Your task to perform on an android device: turn on data saver in the chrome app Image 0: 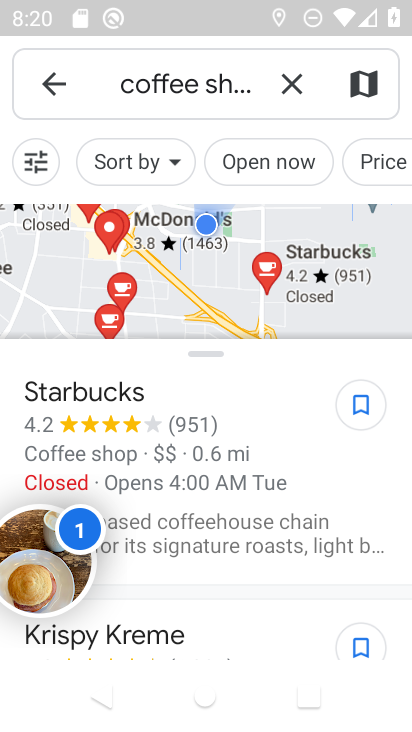
Step 0: click (303, 81)
Your task to perform on an android device: turn on data saver in the chrome app Image 1: 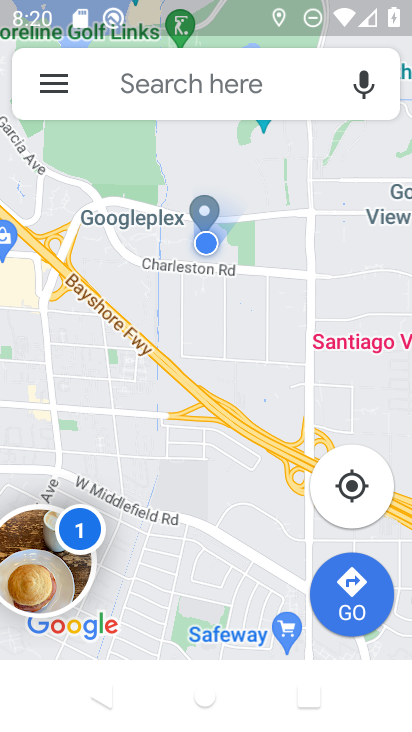
Step 1: press home button
Your task to perform on an android device: turn on data saver in the chrome app Image 2: 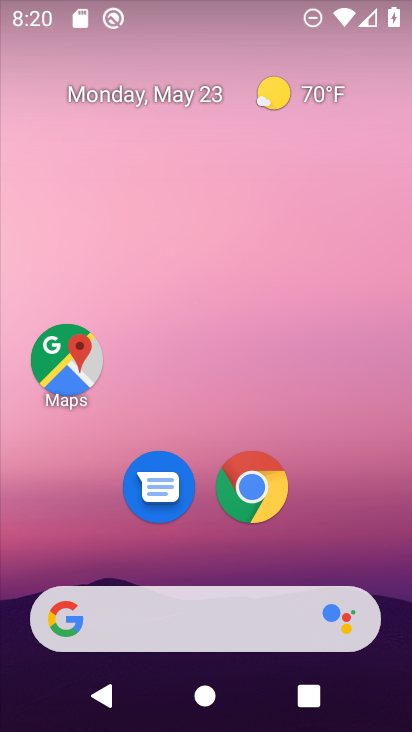
Step 2: click (243, 499)
Your task to perform on an android device: turn on data saver in the chrome app Image 3: 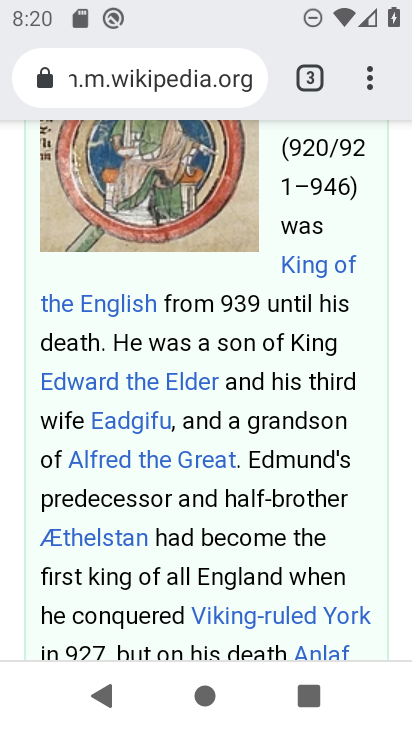
Step 3: click (371, 78)
Your task to perform on an android device: turn on data saver in the chrome app Image 4: 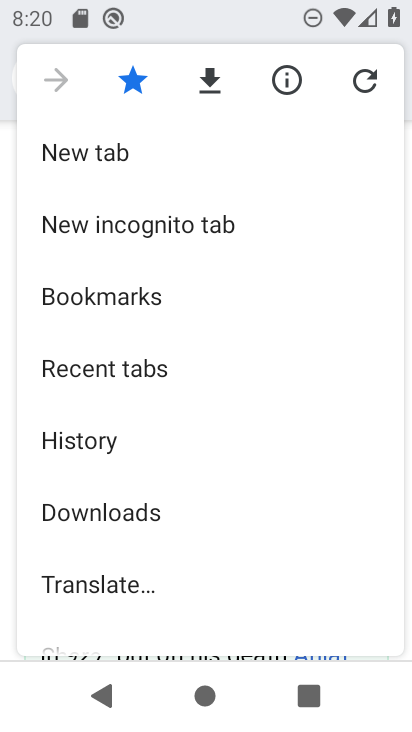
Step 4: drag from (101, 616) to (66, 552)
Your task to perform on an android device: turn on data saver in the chrome app Image 5: 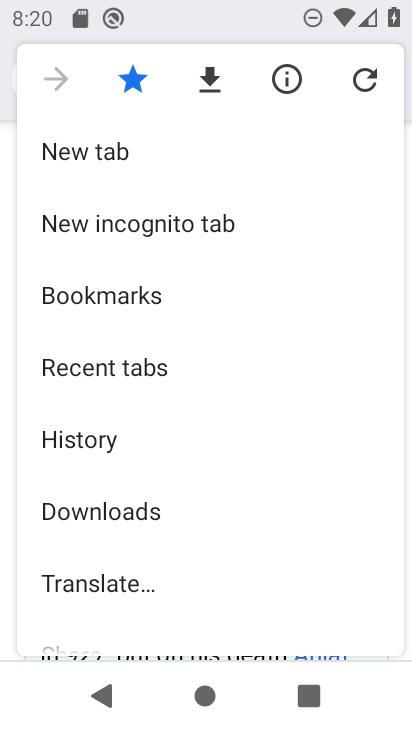
Step 5: drag from (123, 640) to (148, 136)
Your task to perform on an android device: turn on data saver in the chrome app Image 6: 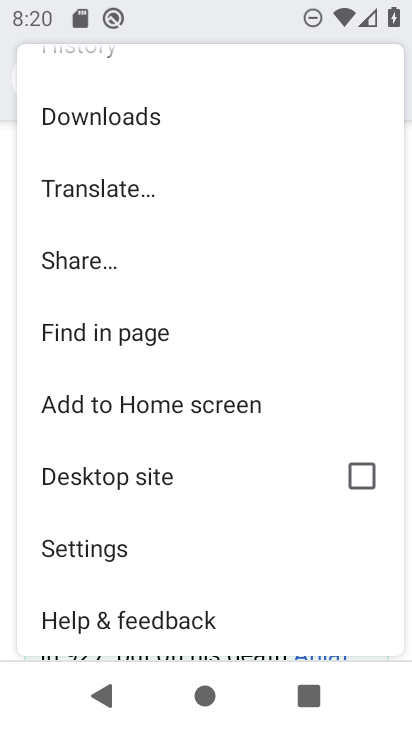
Step 6: click (90, 559)
Your task to perform on an android device: turn on data saver in the chrome app Image 7: 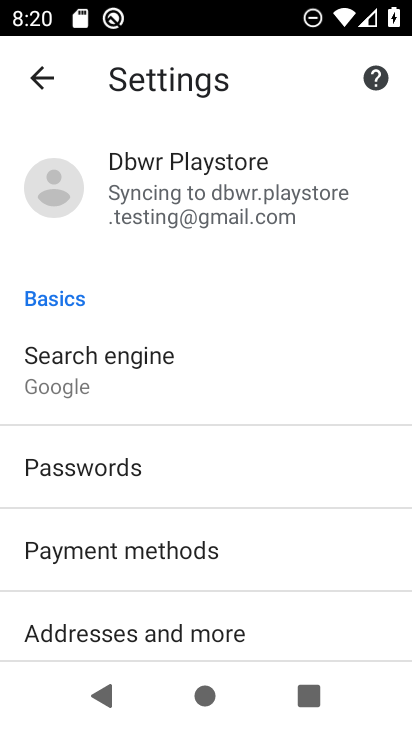
Step 7: drag from (139, 521) to (206, 47)
Your task to perform on an android device: turn on data saver in the chrome app Image 8: 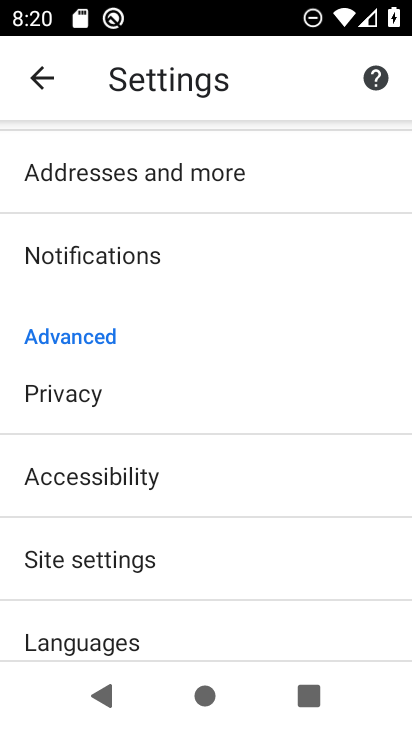
Step 8: drag from (93, 568) to (138, 167)
Your task to perform on an android device: turn on data saver in the chrome app Image 9: 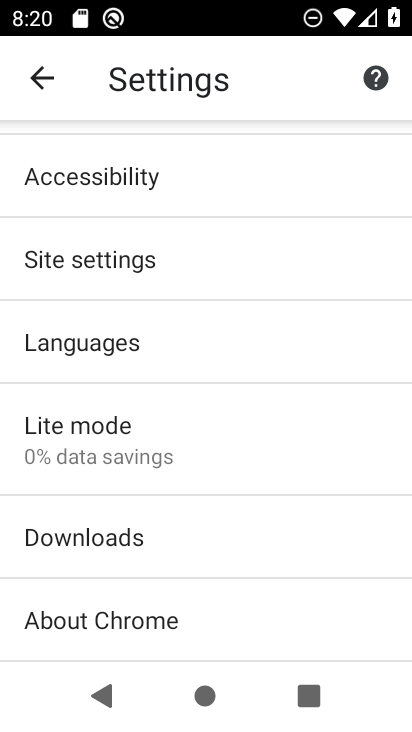
Step 9: click (101, 450)
Your task to perform on an android device: turn on data saver in the chrome app Image 10: 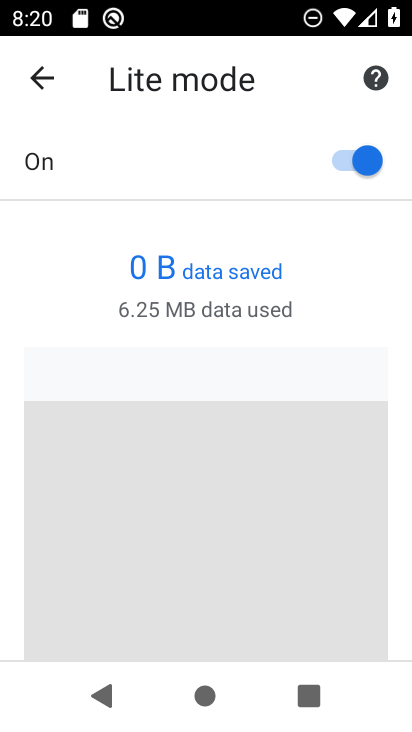
Step 10: task complete